Your task to perform on an android device: Open the calendar app, open the side menu, and click the "Day" option Image 0: 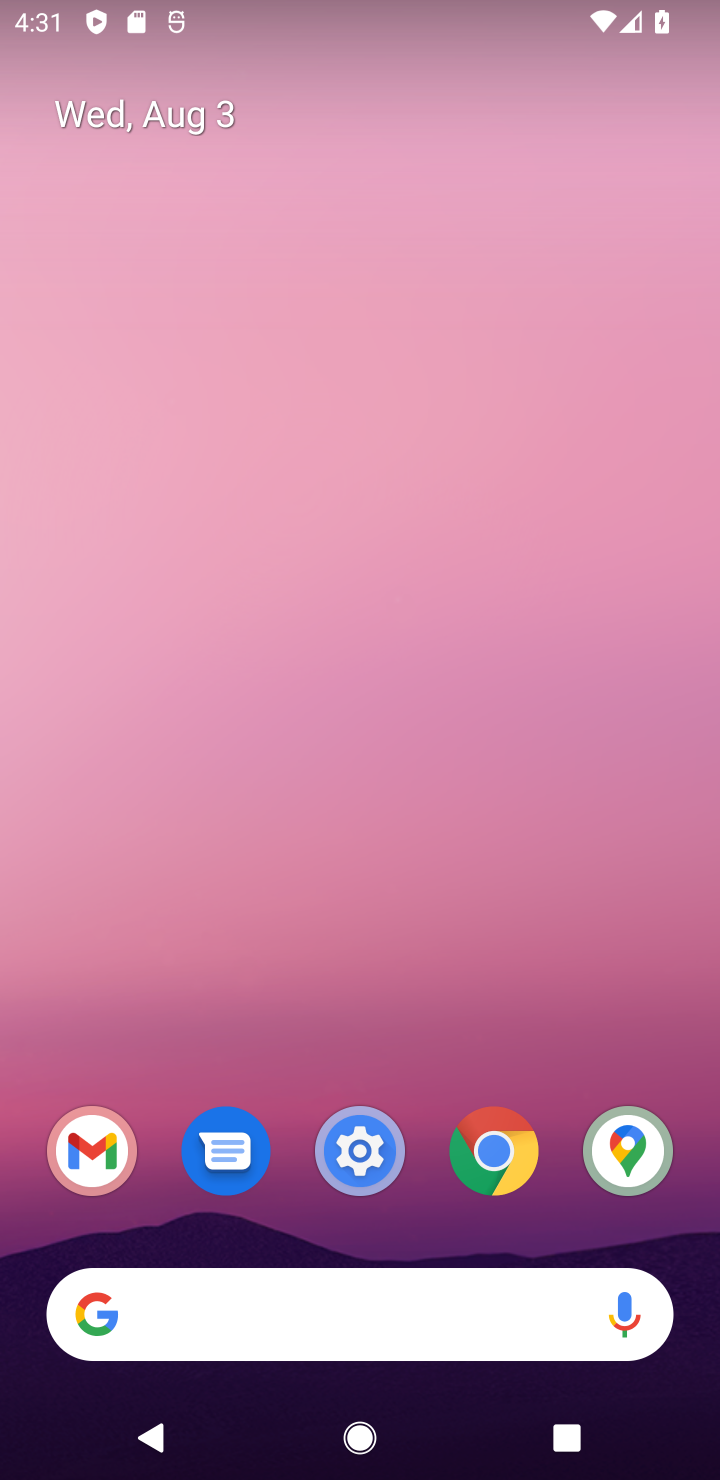
Step 0: drag from (373, 1067) to (325, 569)
Your task to perform on an android device: Open the calendar app, open the side menu, and click the "Day" option Image 1: 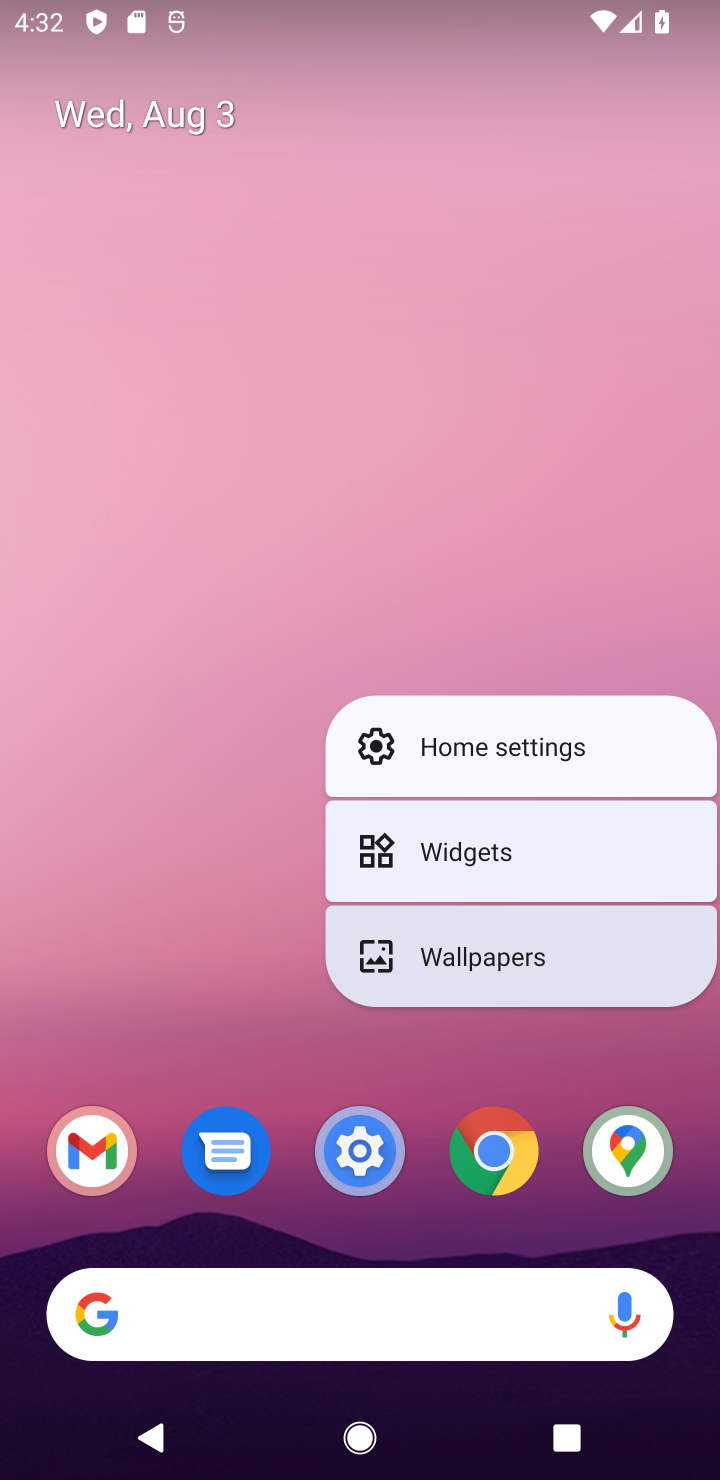
Step 1: click (325, 571)
Your task to perform on an android device: Open the calendar app, open the side menu, and click the "Day" option Image 2: 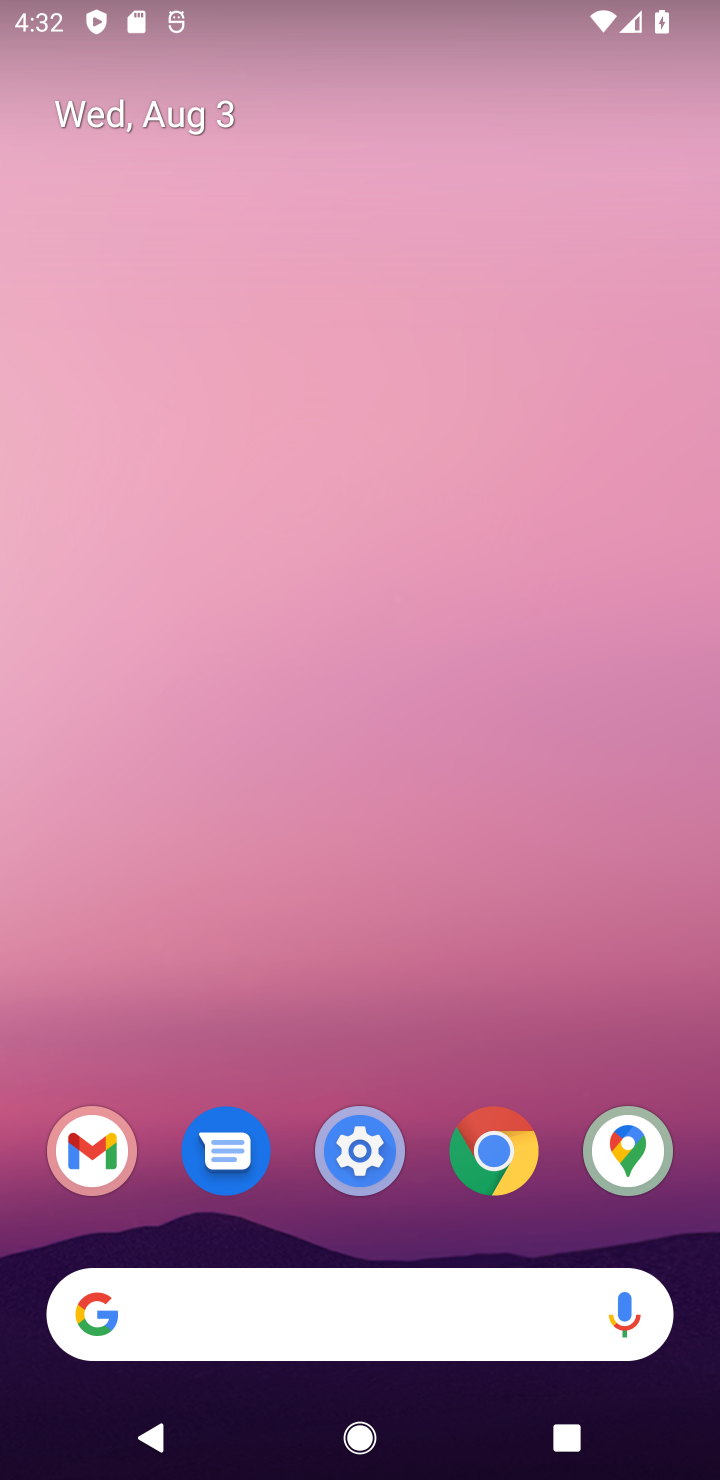
Step 2: drag from (423, 1095) to (336, 342)
Your task to perform on an android device: Open the calendar app, open the side menu, and click the "Day" option Image 3: 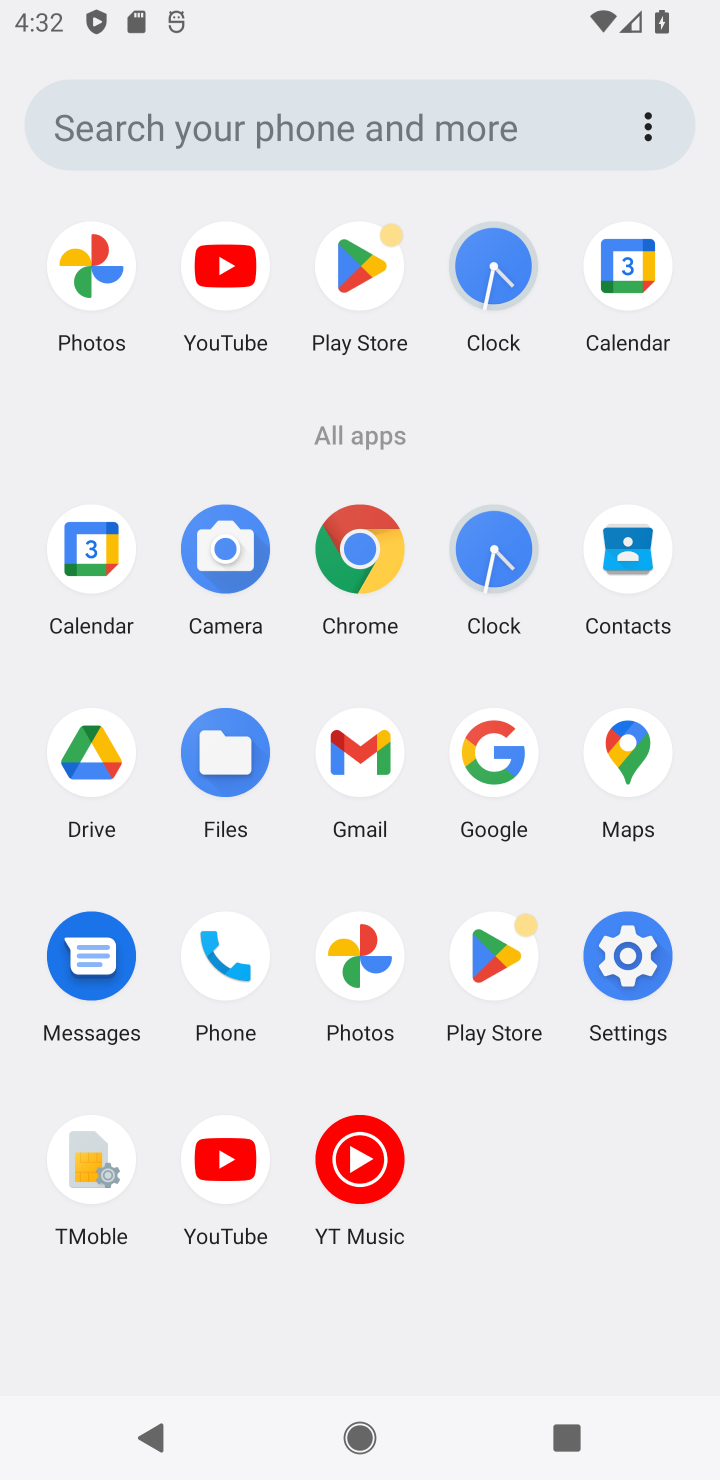
Step 3: click (627, 295)
Your task to perform on an android device: Open the calendar app, open the side menu, and click the "Day" option Image 4: 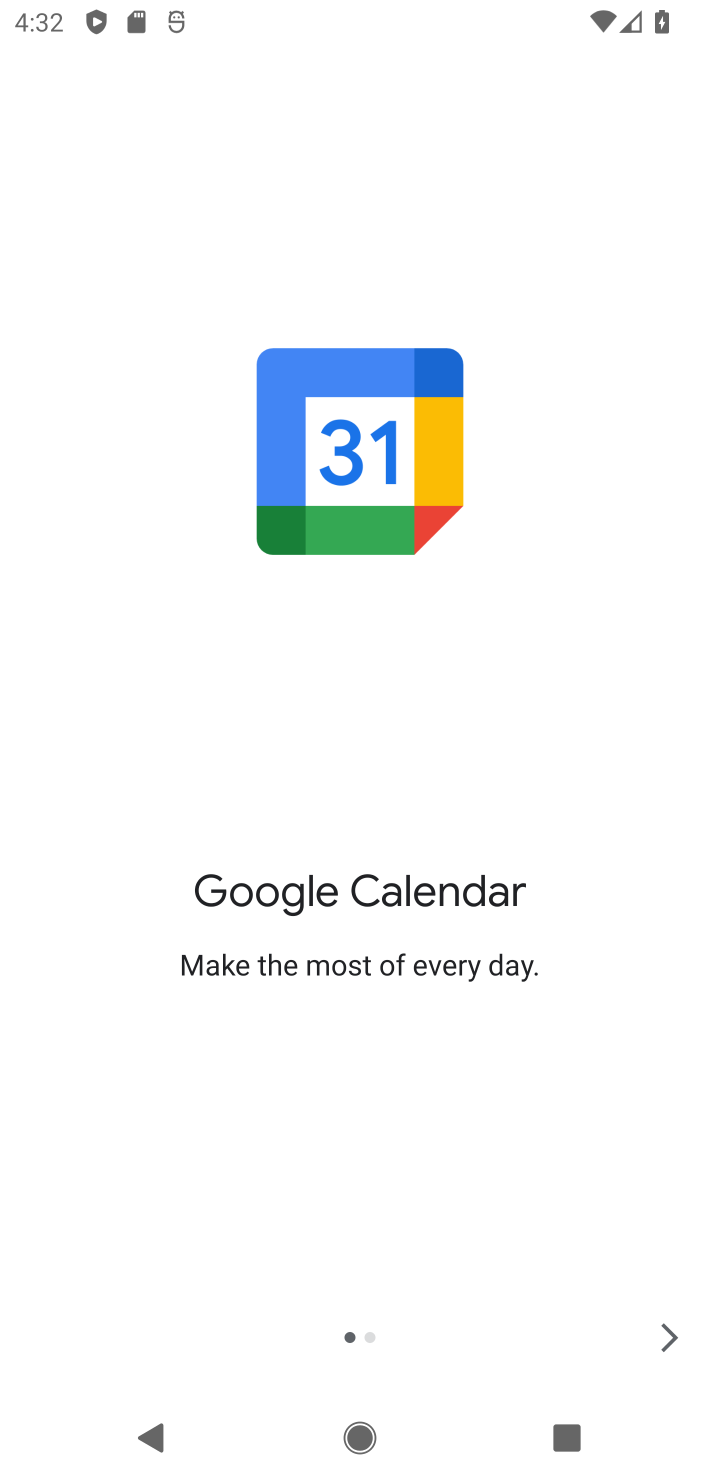
Step 4: click (675, 1338)
Your task to perform on an android device: Open the calendar app, open the side menu, and click the "Day" option Image 5: 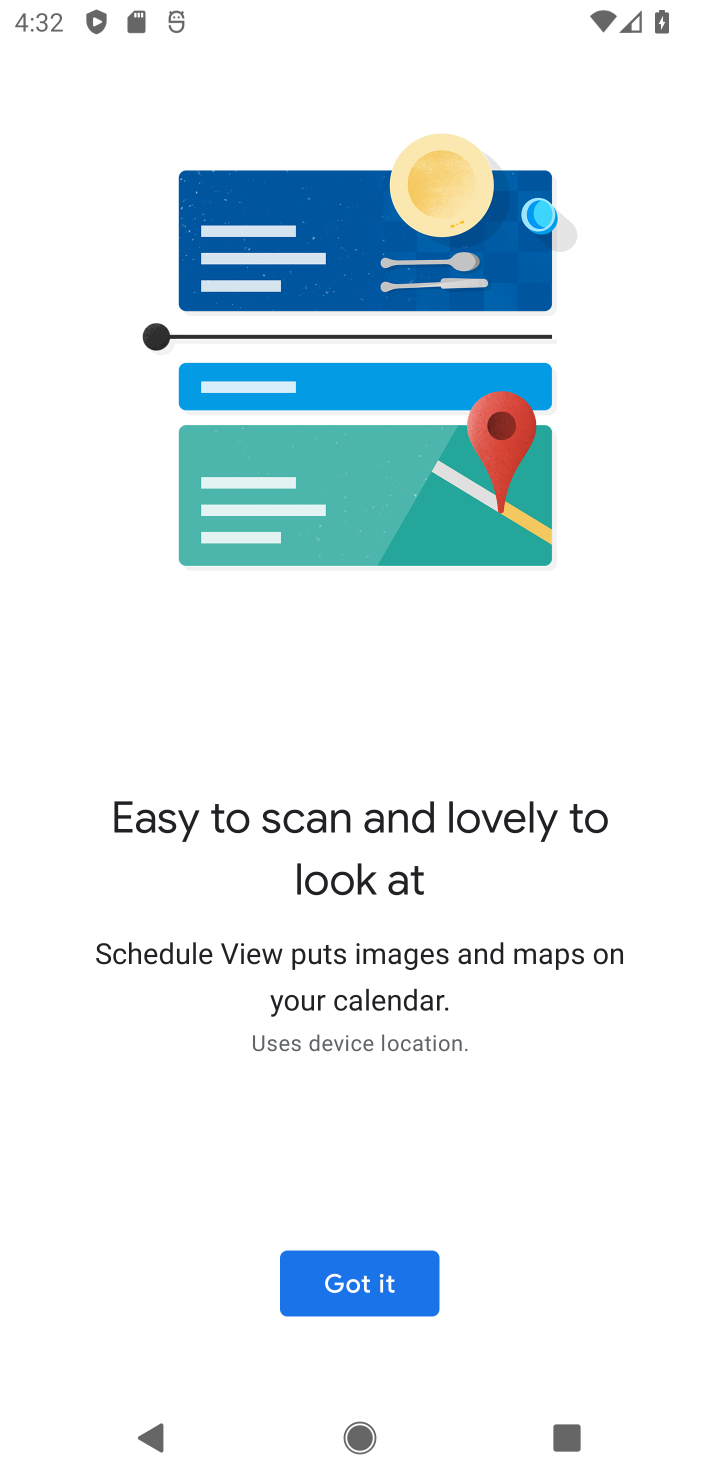
Step 5: click (675, 1338)
Your task to perform on an android device: Open the calendar app, open the side menu, and click the "Day" option Image 6: 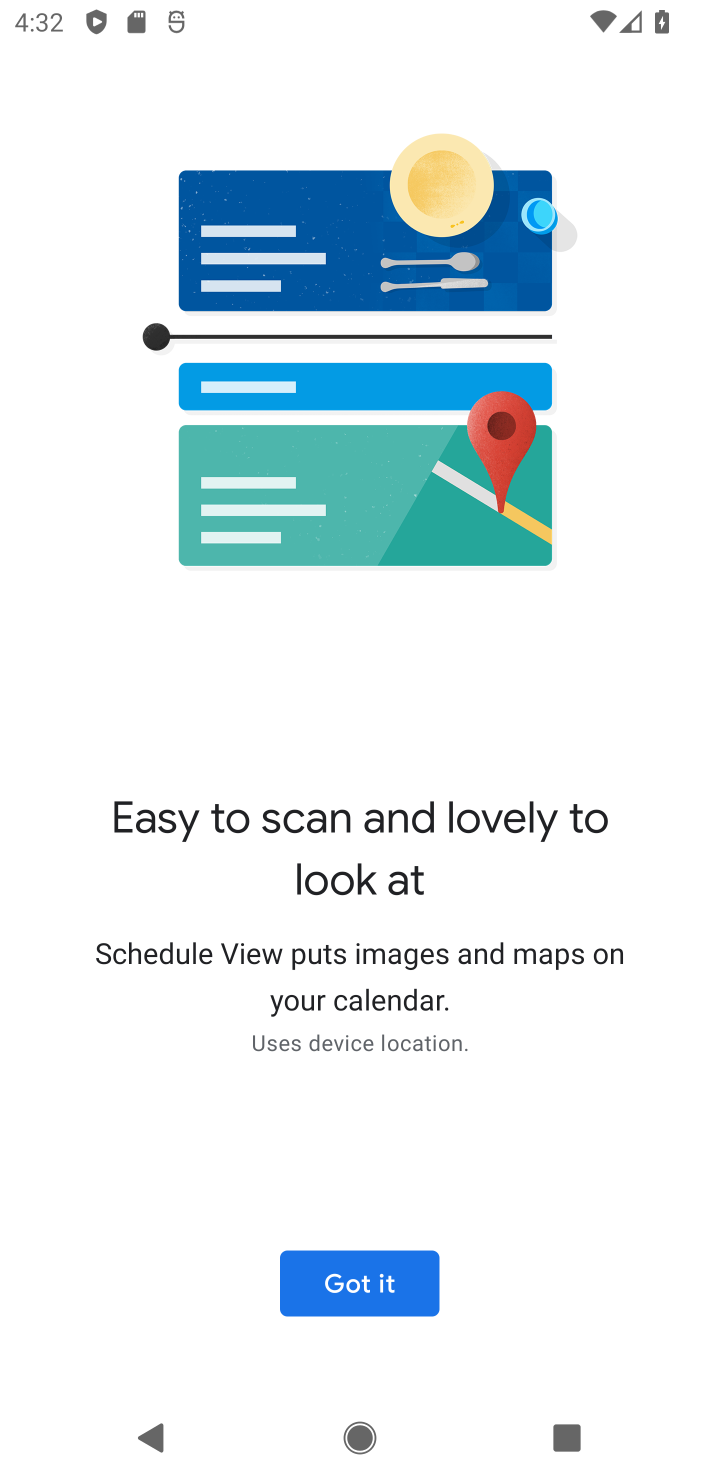
Step 6: click (401, 1284)
Your task to perform on an android device: Open the calendar app, open the side menu, and click the "Day" option Image 7: 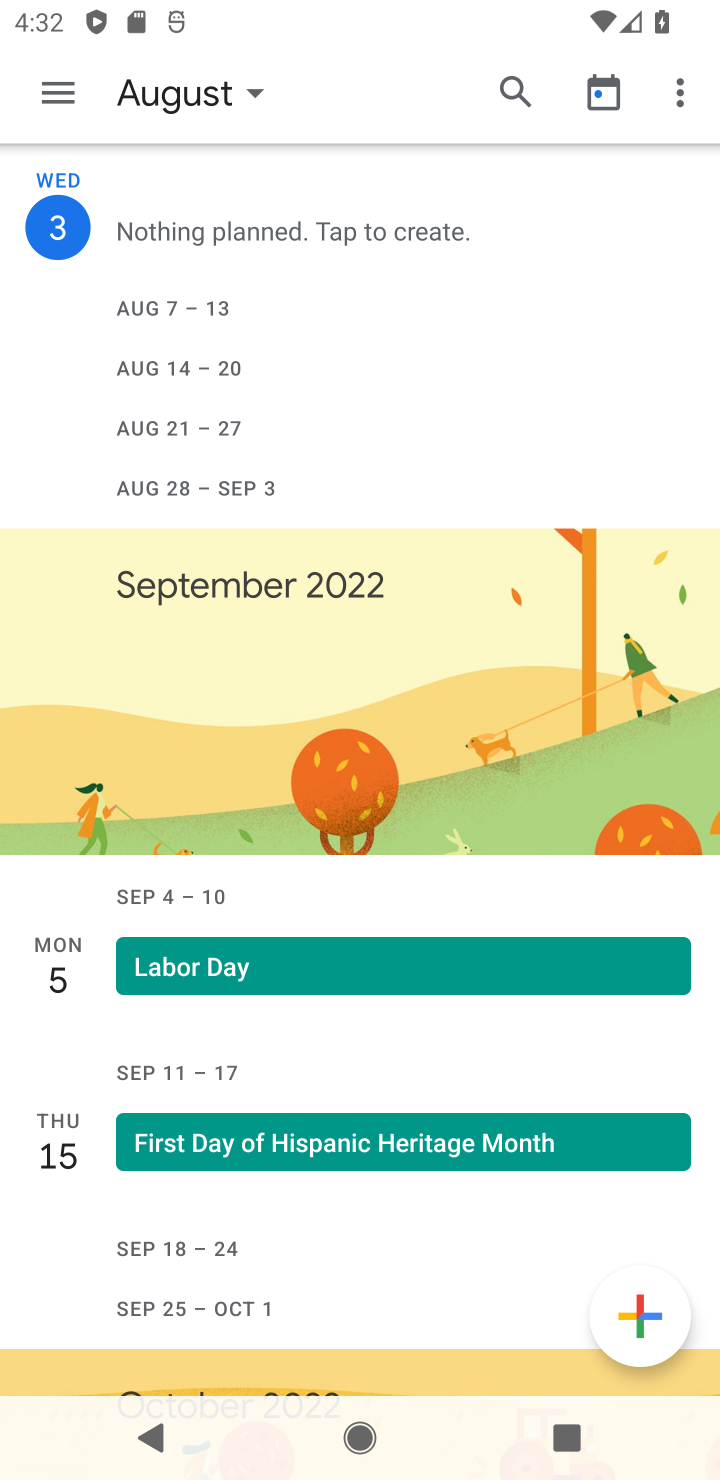
Step 7: click (69, 109)
Your task to perform on an android device: Open the calendar app, open the side menu, and click the "Day" option Image 8: 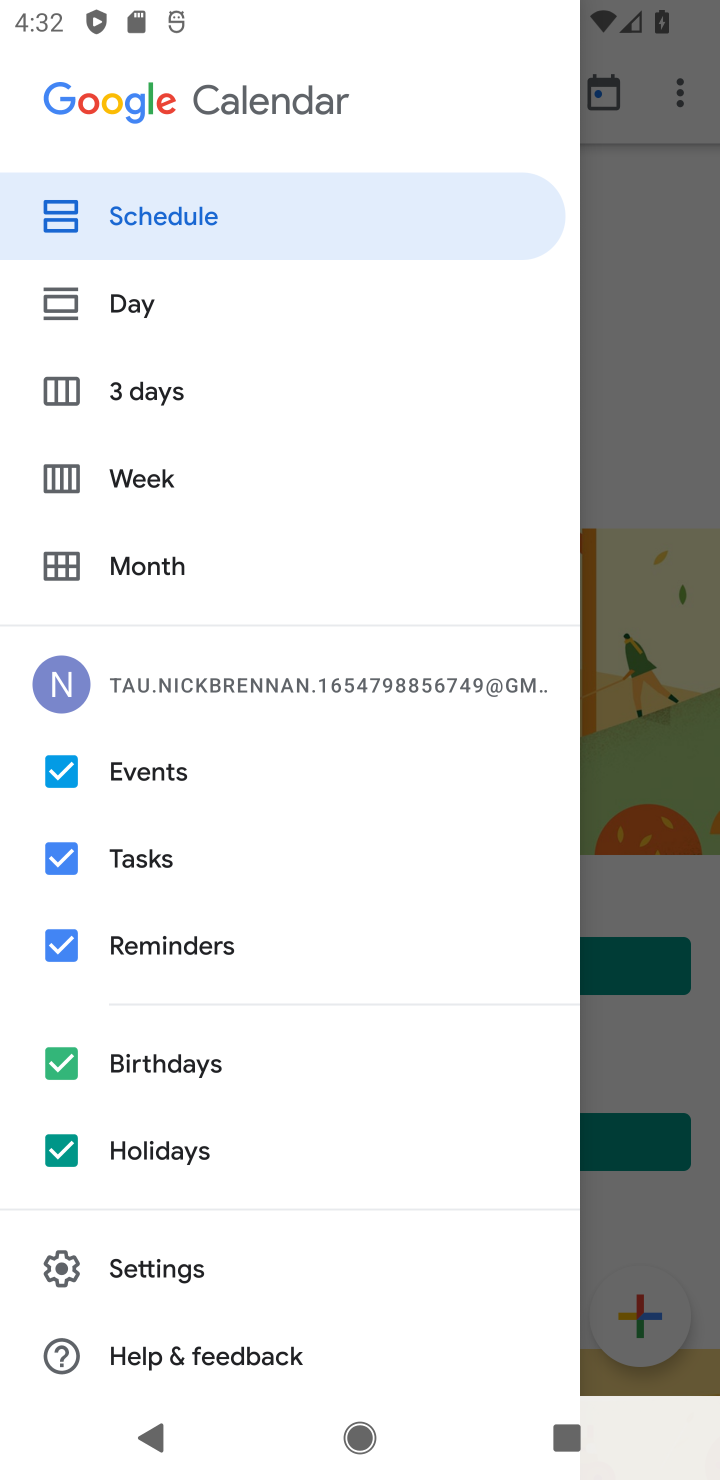
Step 8: click (153, 303)
Your task to perform on an android device: Open the calendar app, open the side menu, and click the "Day" option Image 9: 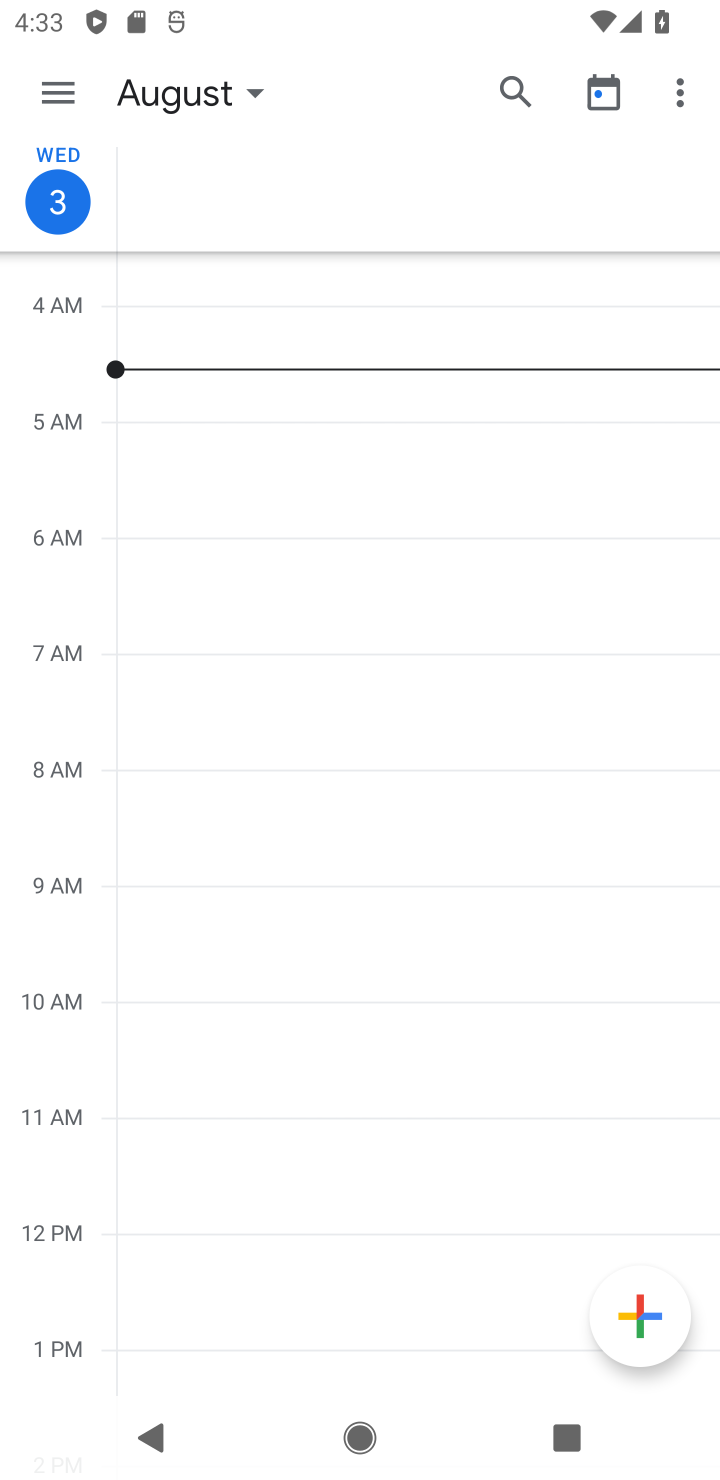
Step 9: task complete